Your task to perform on an android device: Open calendar and show me the second week of next month Image 0: 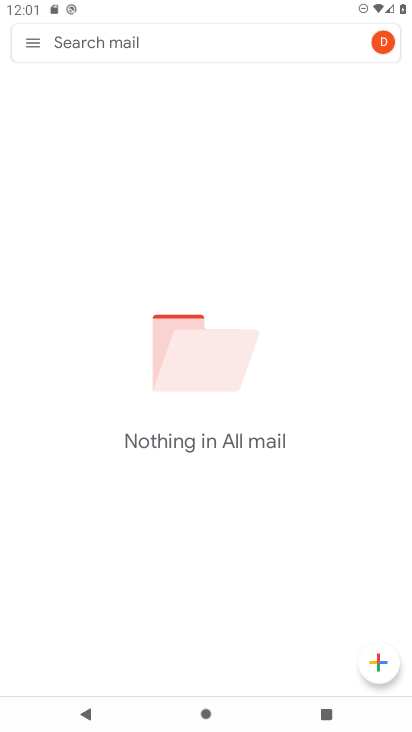
Step 0: press home button
Your task to perform on an android device: Open calendar and show me the second week of next month Image 1: 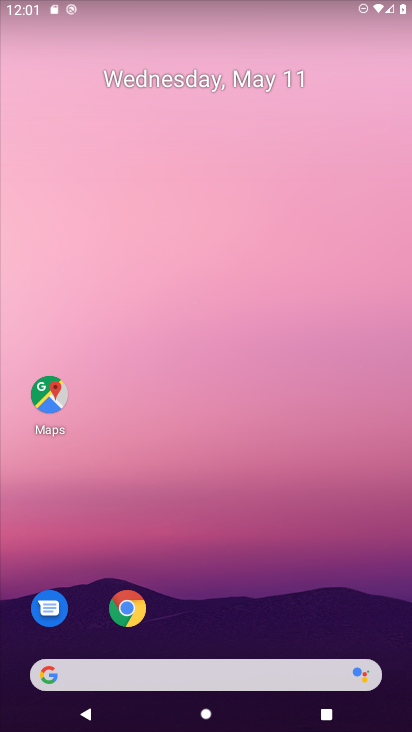
Step 1: drag from (245, 538) to (270, 120)
Your task to perform on an android device: Open calendar and show me the second week of next month Image 2: 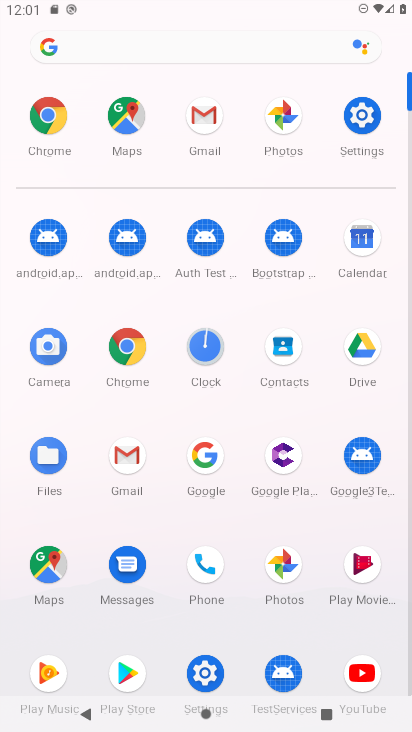
Step 2: click (360, 240)
Your task to perform on an android device: Open calendar and show me the second week of next month Image 3: 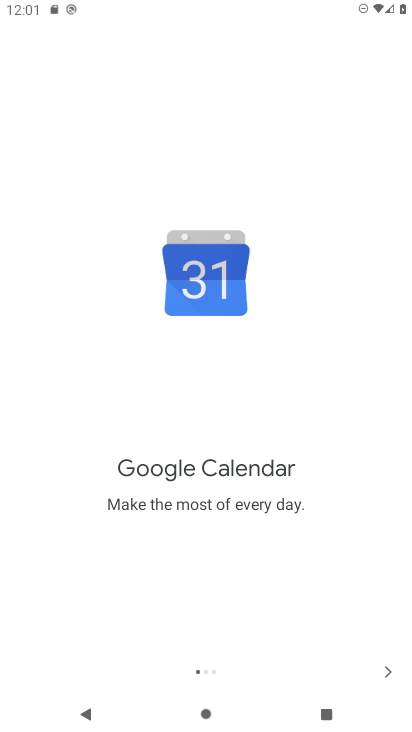
Step 3: click (380, 668)
Your task to perform on an android device: Open calendar and show me the second week of next month Image 4: 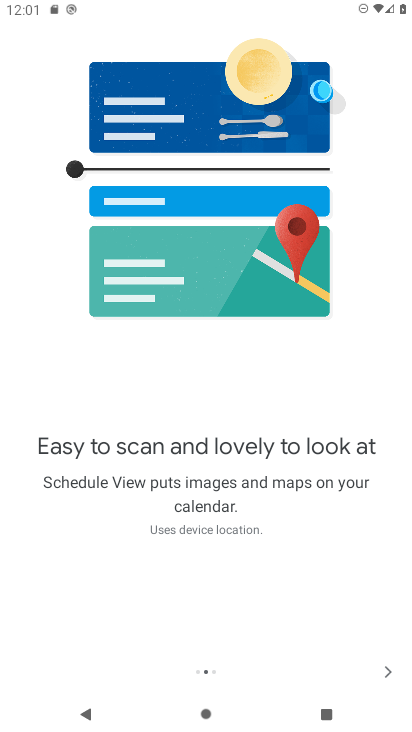
Step 4: click (380, 668)
Your task to perform on an android device: Open calendar and show me the second week of next month Image 5: 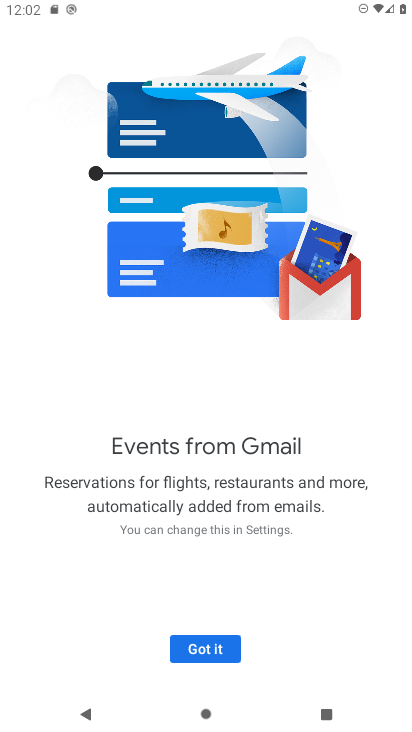
Step 5: click (225, 637)
Your task to perform on an android device: Open calendar and show me the second week of next month Image 6: 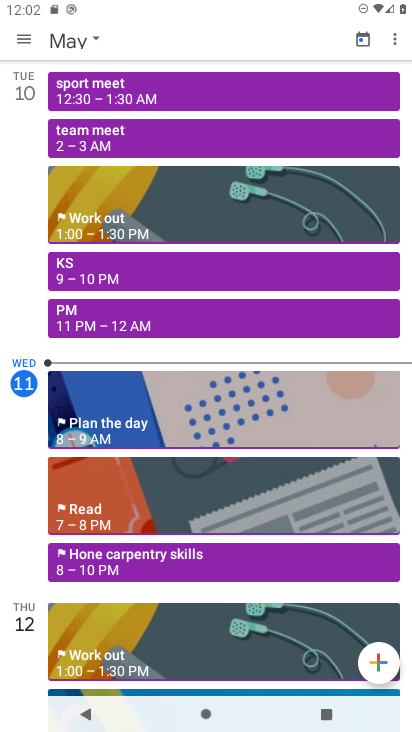
Step 6: click (29, 32)
Your task to perform on an android device: Open calendar and show me the second week of next month Image 7: 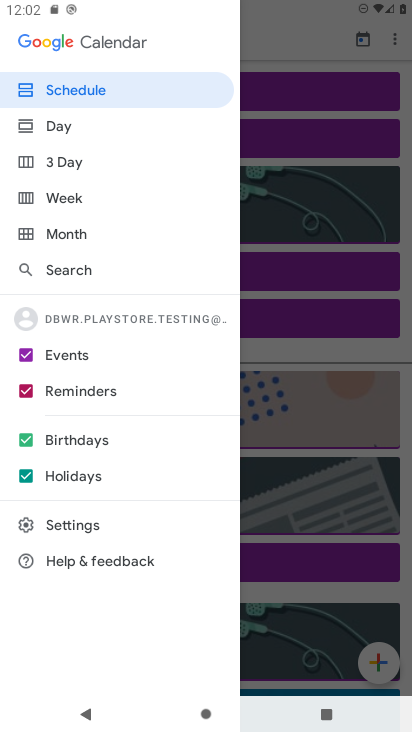
Step 7: click (68, 225)
Your task to perform on an android device: Open calendar and show me the second week of next month Image 8: 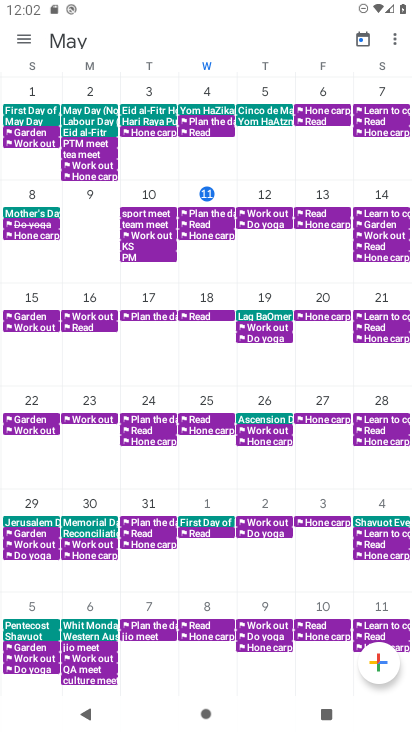
Step 8: drag from (335, 282) to (0, 353)
Your task to perform on an android device: Open calendar and show me the second week of next month Image 9: 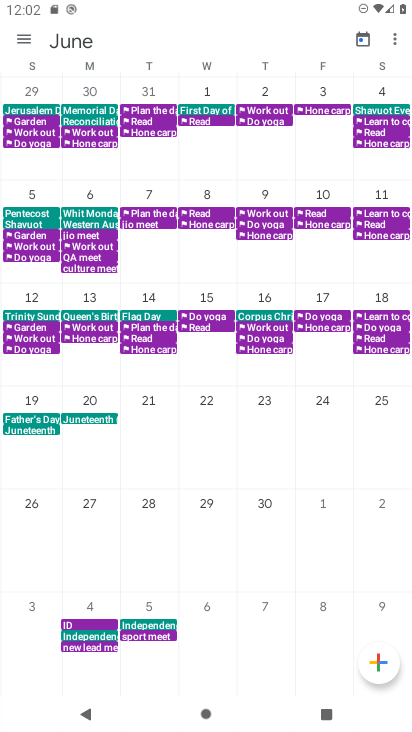
Step 9: click (37, 302)
Your task to perform on an android device: Open calendar and show me the second week of next month Image 10: 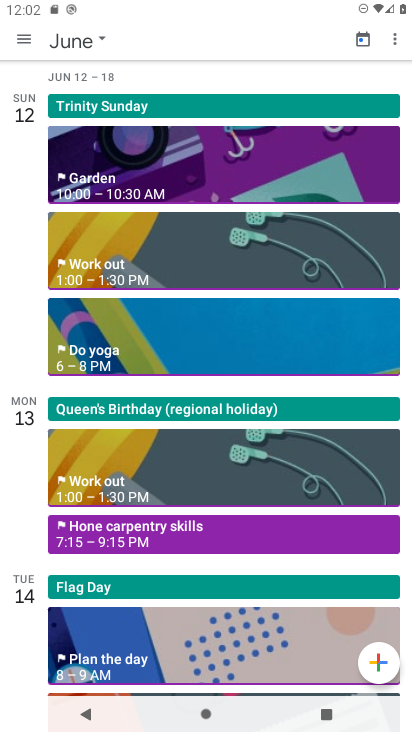
Step 10: click (20, 30)
Your task to perform on an android device: Open calendar and show me the second week of next month Image 11: 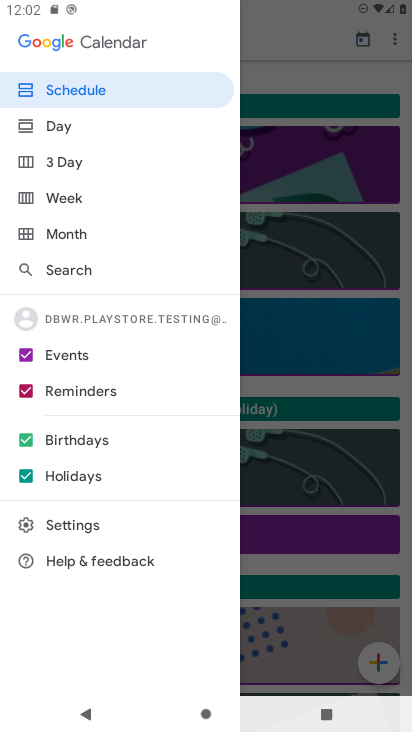
Step 11: click (26, 191)
Your task to perform on an android device: Open calendar and show me the second week of next month Image 12: 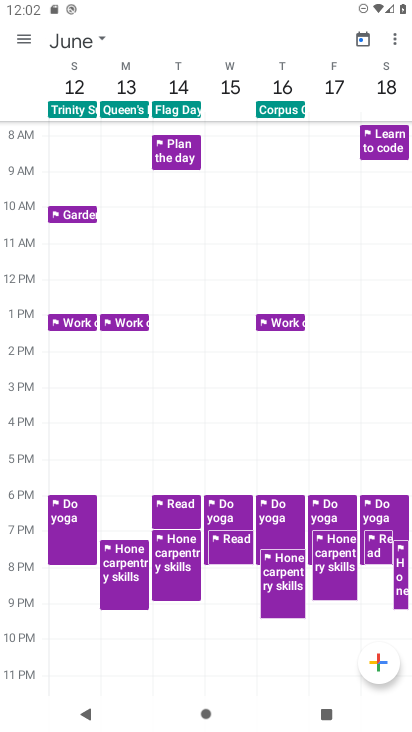
Step 12: task complete